Your task to perform on an android device: turn on airplane mode Image 0: 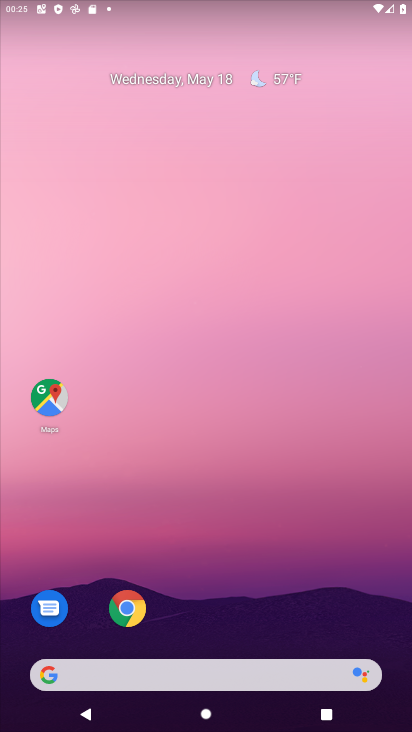
Step 0: drag from (207, 494) to (99, 40)
Your task to perform on an android device: turn on airplane mode Image 1: 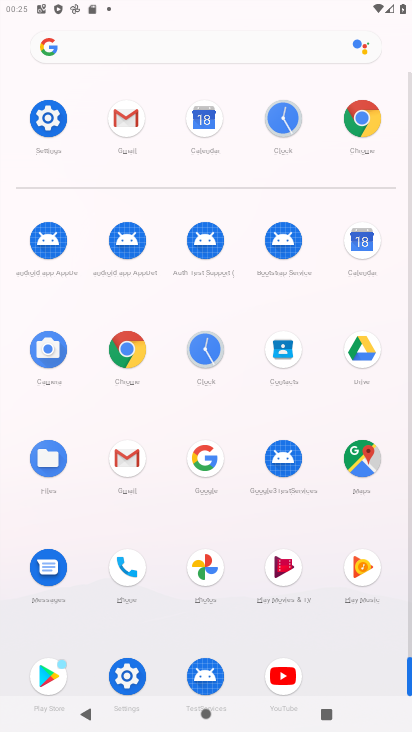
Step 1: click (48, 117)
Your task to perform on an android device: turn on airplane mode Image 2: 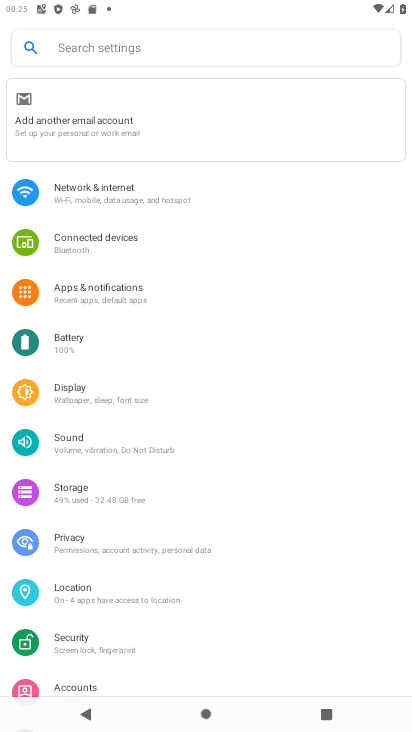
Step 2: click (94, 191)
Your task to perform on an android device: turn on airplane mode Image 3: 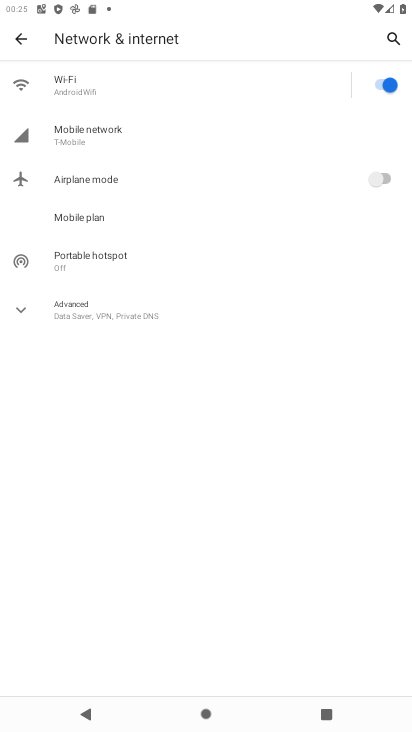
Step 3: click (376, 176)
Your task to perform on an android device: turn on airplane mode Image 4: 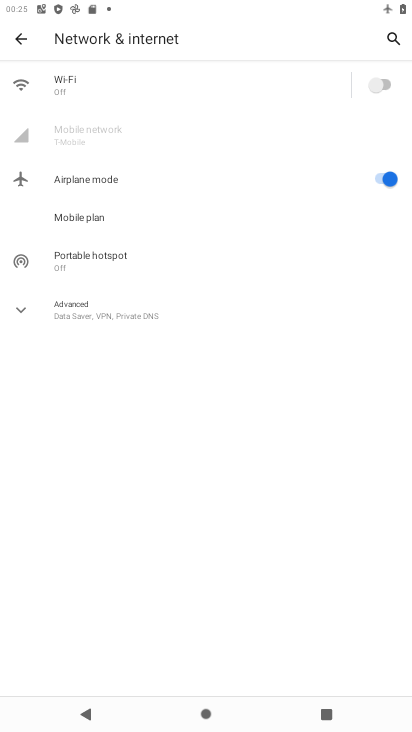
Step 4: task complete